Your task to perform on an android device: change the clock display to digital Image 0: 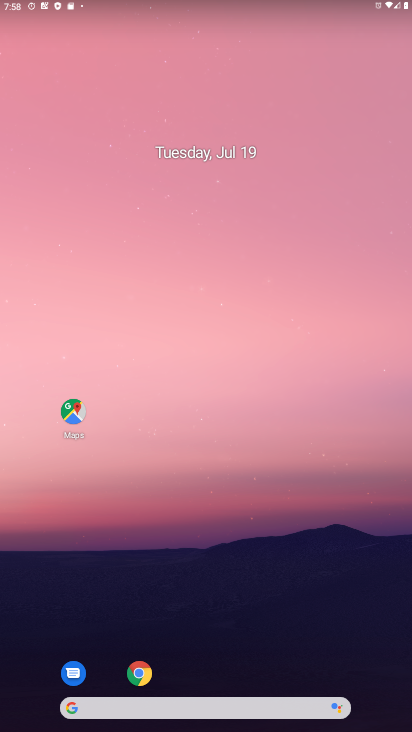
Step 0: drag from (262, 618) to (238, 3)
Your task to perform on an android device: change the clock display to digital Image 1: 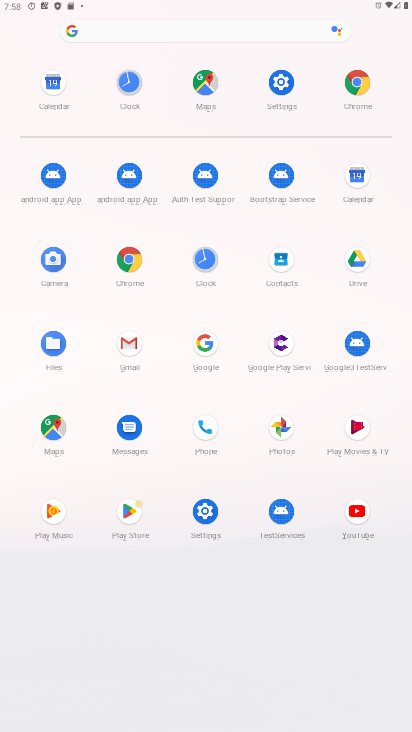
Step 1: click (203, 263)
Your task to perform on an android device: change the clock display to digital Image 2: 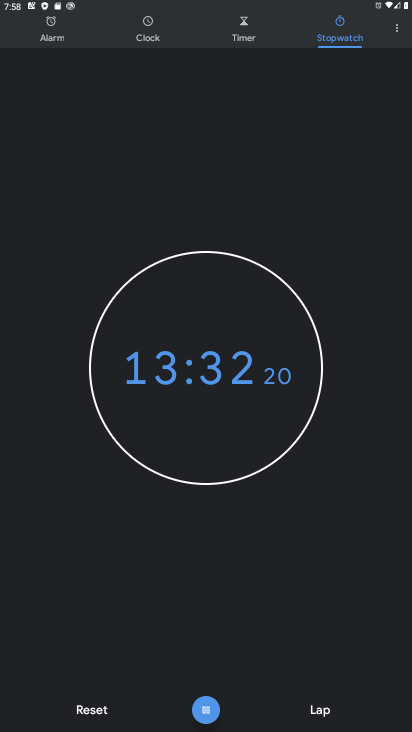
Step 2: click (394, 36)
Your task to perform on an android device: change the clock display to digital Image 3: 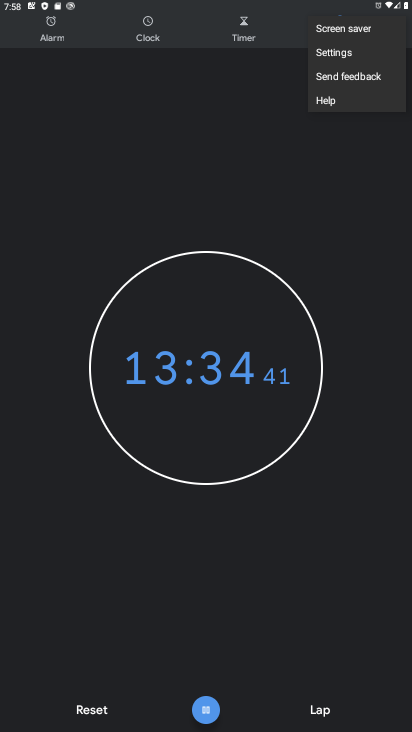
Step 3: click (340, 52)
Your task to perform on an android device: change the clock display to digital Image 4: 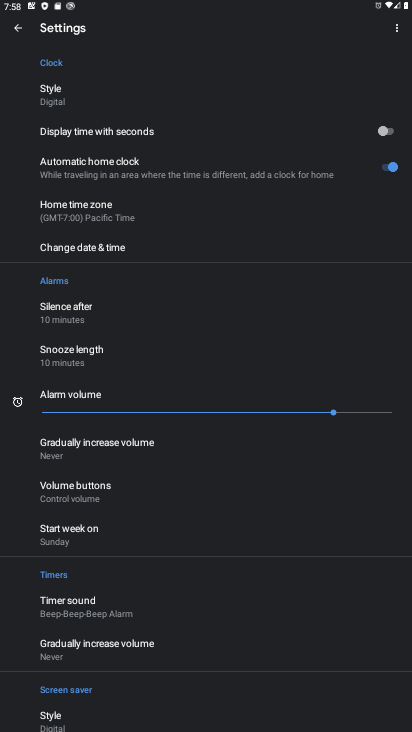
Step 4: task complete